Your task to perform on an android device: toggle notification dots Image 0: 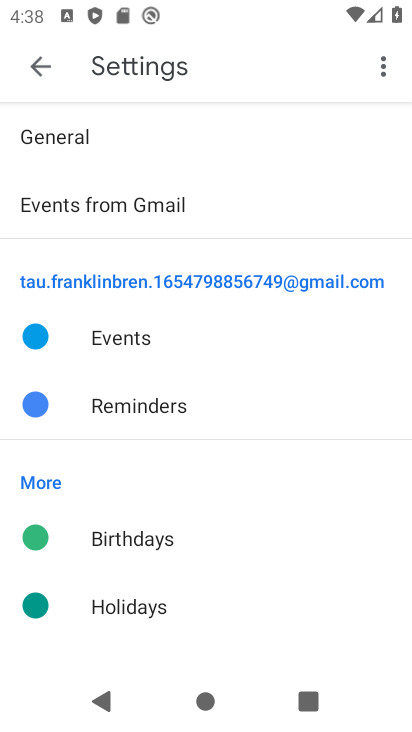
Step 0: press home button
Your task to perform on an android device: toggle notification dots Image 1: 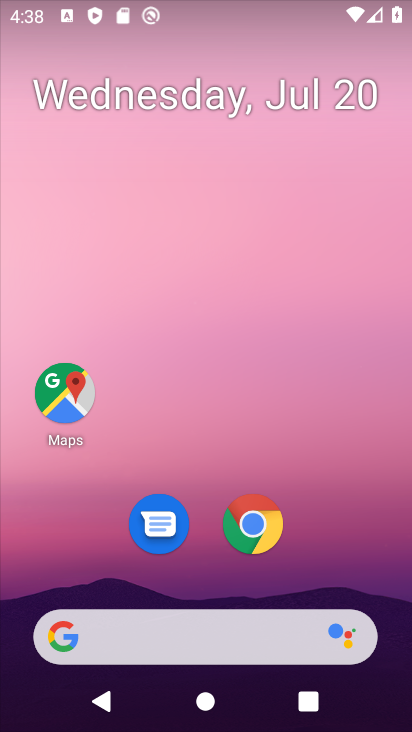
Step 1: drag from (328, 547) to (339, 62)
Your task to perform on an android device: toggle notification dots Image 2: 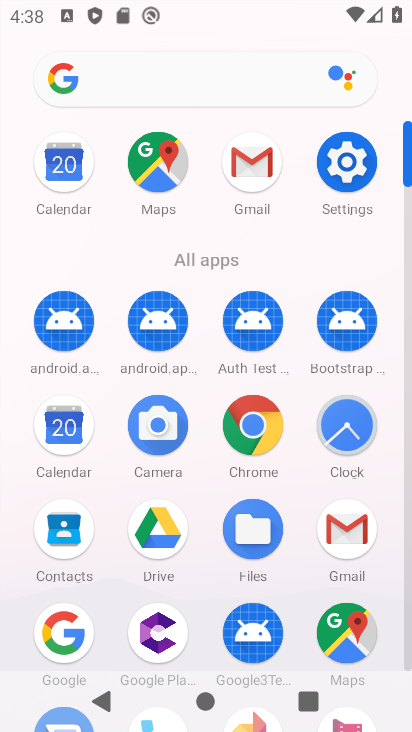
Step 2: click (351, 173)
Your task to perform on an android device: toggle notification dots Image 3: 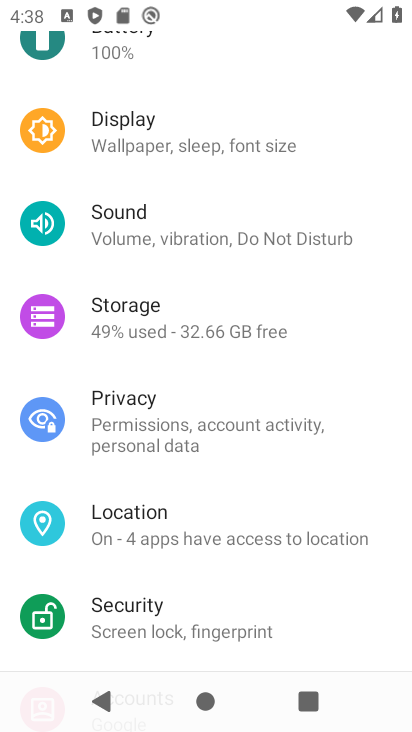
Step 3: drag from (244, 166) to (195, 565)
Your task to perform on an android device: toggle notification dots Image 4: 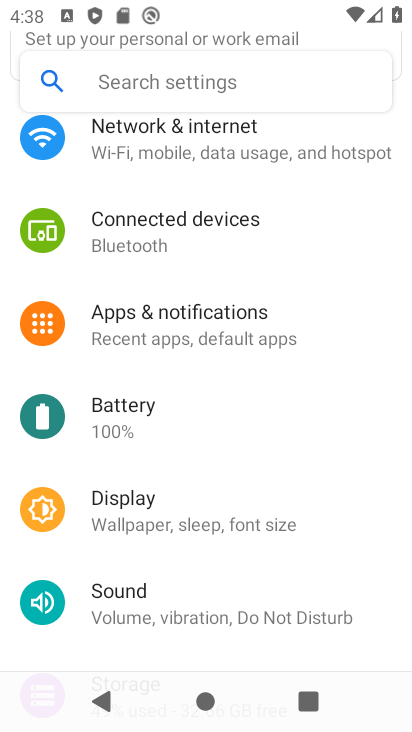
Step 4: click (240, 322)
Your task to perform on an android device: toggle notification dots Image 5: 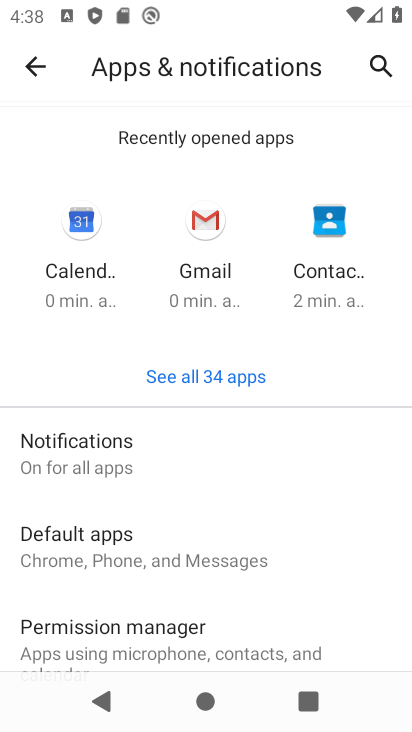
Step 5: click (104, 456)
Your task to perform on an android device: toggle notification dots Image 6: 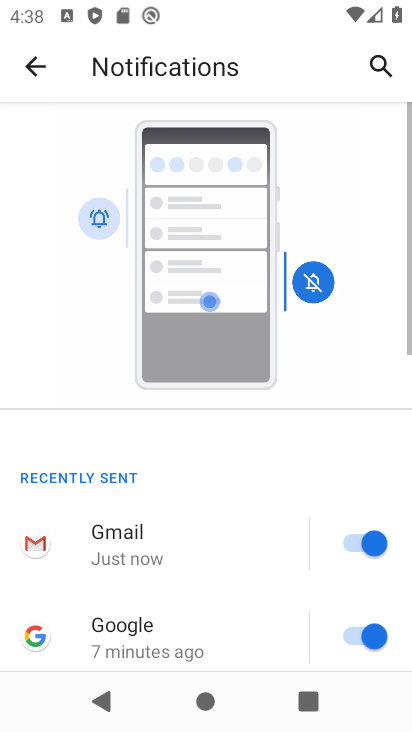
Step 6: drag from (227, 552) to (276, 0)
Your task to perform on an android device: toggle notification dots Image 7: 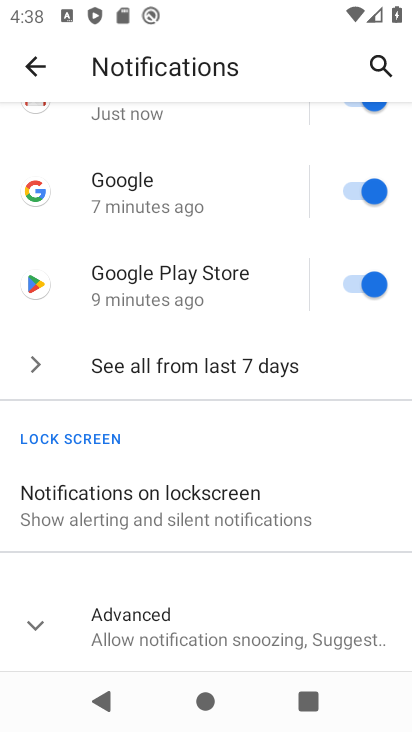
Step 7: click (37, 624)
Your task to perform on an android device: toggle notification dots Image 8: 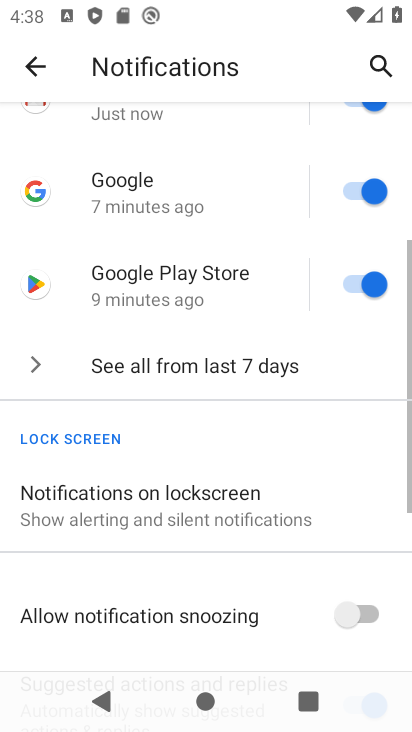
Step 8: drag from (223, 526) to (288, 121)
Your task to perform on an android device: toggle notification dots Image 9: 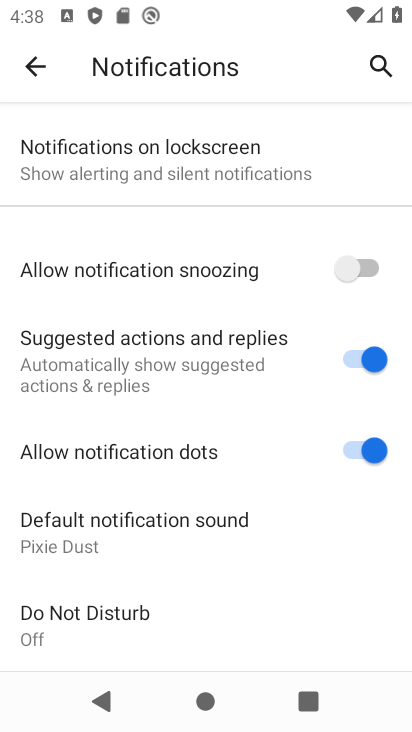
Step 9: click (357, 444)
Your task to perform on an android device: toggle notification dots Image 10: 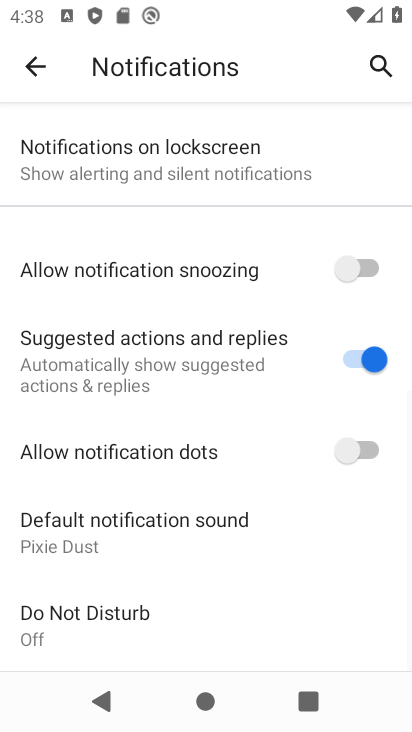
Step 10: task complete